Your task to perform on an android device: open chrome and create a bookmark for the current page Image 0: 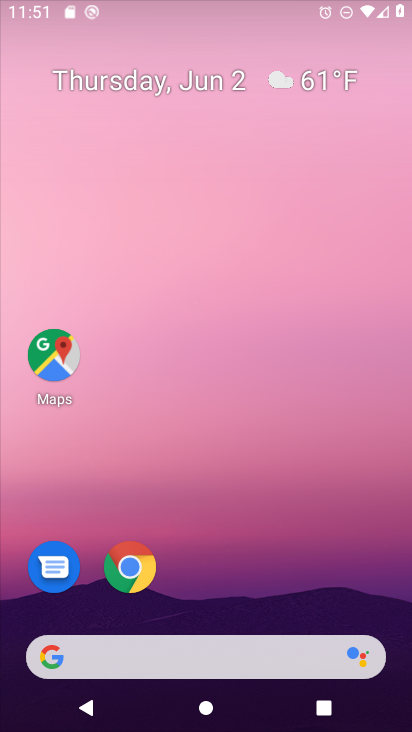
Step 0: click (394, 288)
Your task to perform on an android device: open chrome and create a bookmark for the current page Image 1: 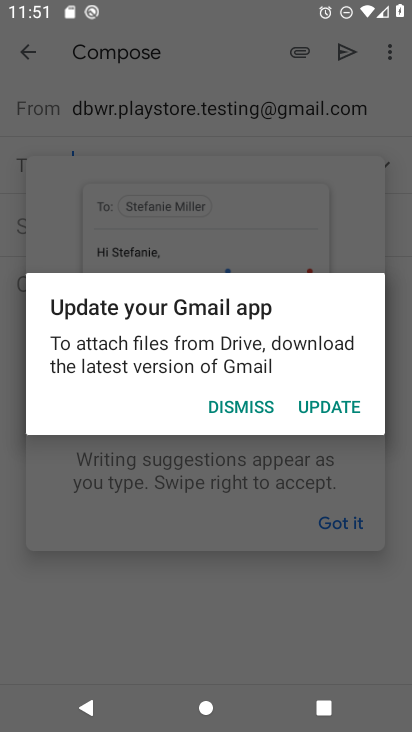
Step 1: press home button
Your task to perform on an android device: open chrome and create a bookmark for the current page Image 2: 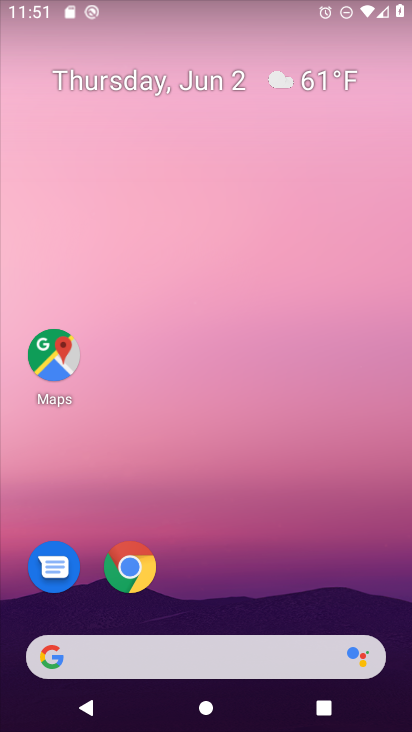
Step 2: click (125, 567)
Your task to perform on an android device: open chrome and create a bookmark for the current page Image 3: 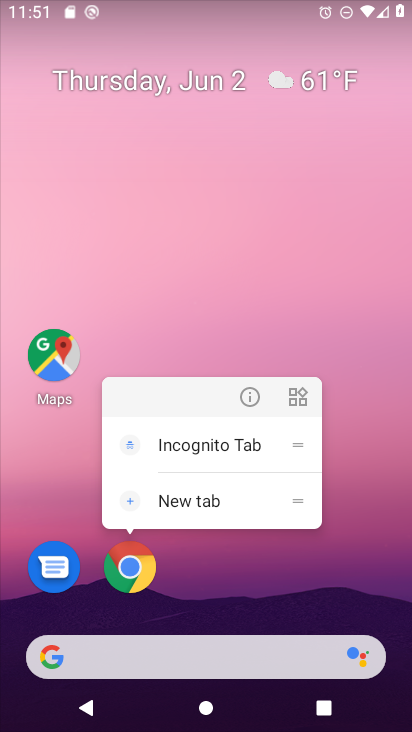
Step 3: click (130, 573)
Your task to perform on an android device: open chrome and create a bookmark for the current page Image 4: 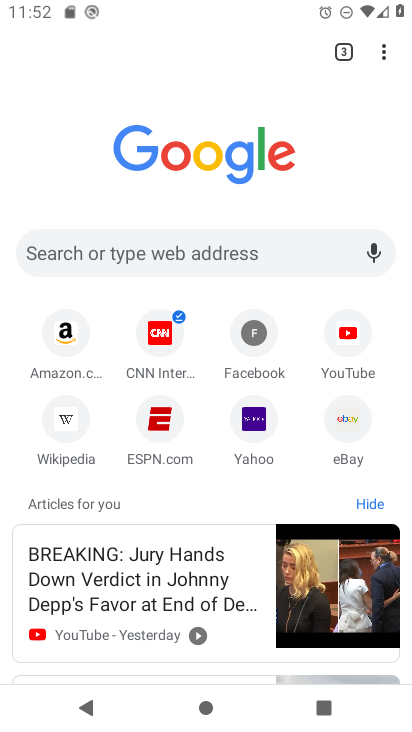
Step 4: task complete